Your task to perform on an android device: Open calendar and show me the first week of next month Image 0: 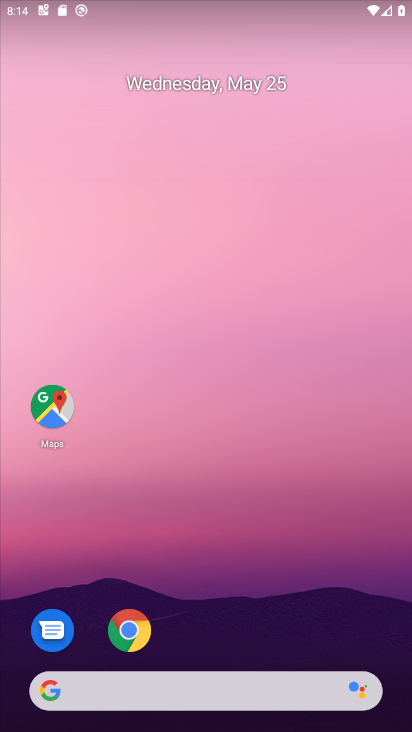
Step 0: drag from (261, 584) to (303, 157)
Your task to perform on an android device: Open calendar and show me the first week of next month Image 1: 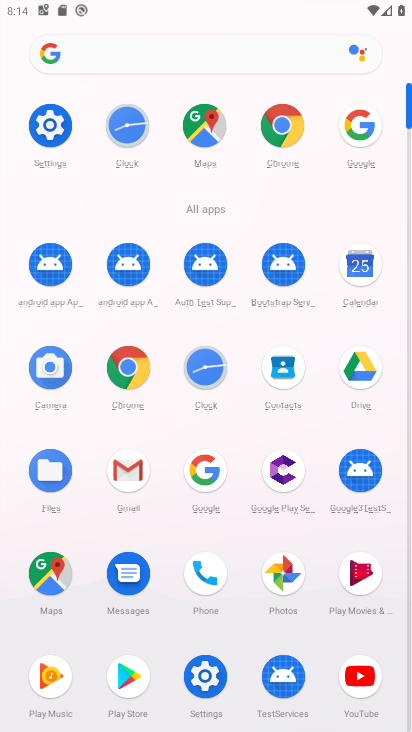
Step 1: click (363, 268)
Your task to perform on an android device: Open calendar and show me the first week of next month Image 2: 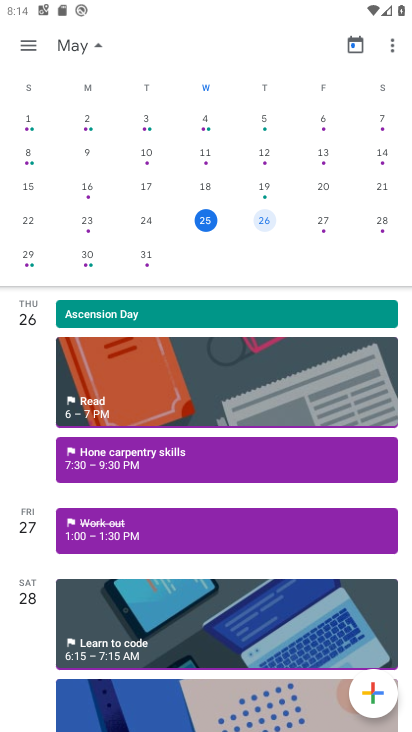
Step 2: drag from (354, 254) to (73, 242)
Your task to perform on an android device: Open calendar and show me the first week of next month Image 3: 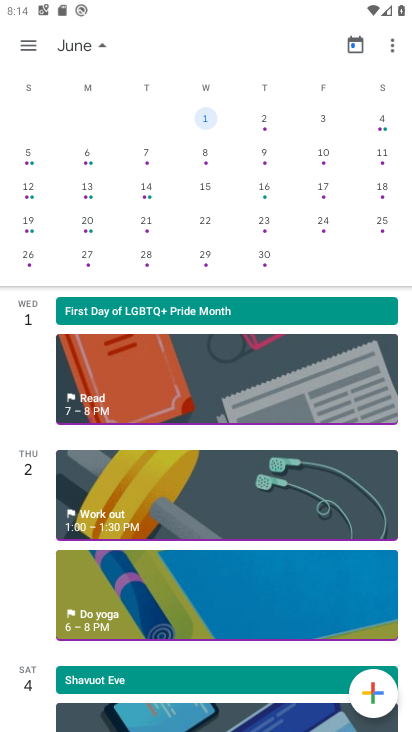
Step 3: click (268, 123)
Your task to perform on an android device: Open calendar and show me the first week of next month Image 4: 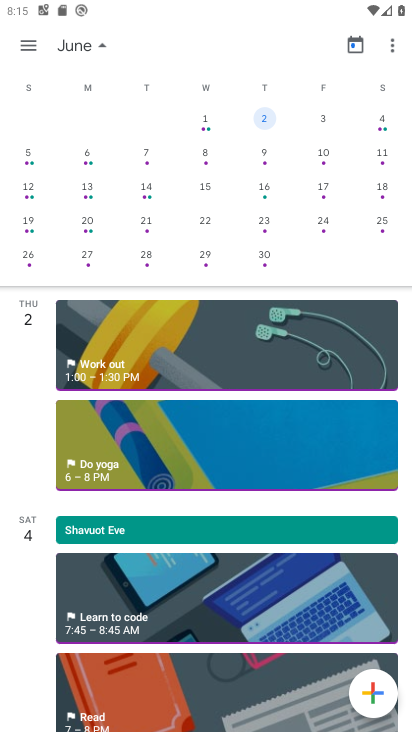
Step 4: task complete